Your task to perform on an android device: Go to eBay Image 0: 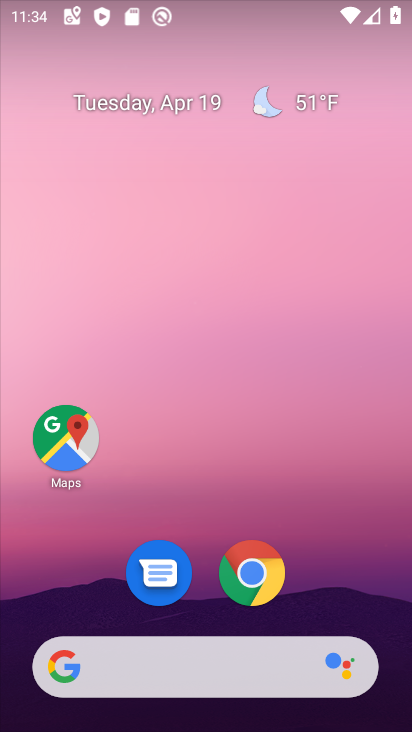
Step 0: click (255, 588)
Your task to perform on an android device: Go to eBay Image 1: 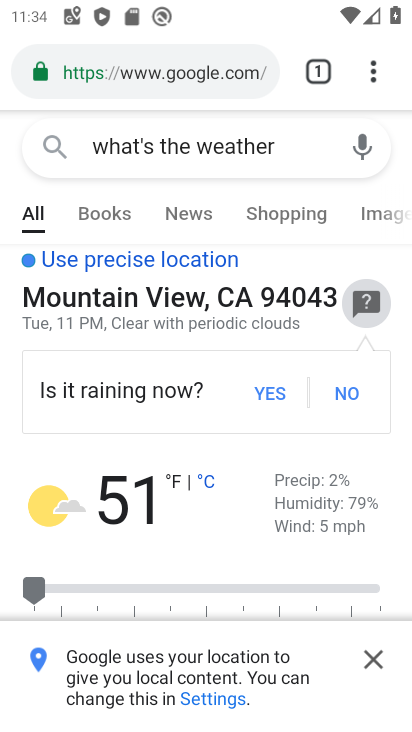
Step 1: click (202, 66)
Your task to perform on an android device: Go to eBay Image 2: 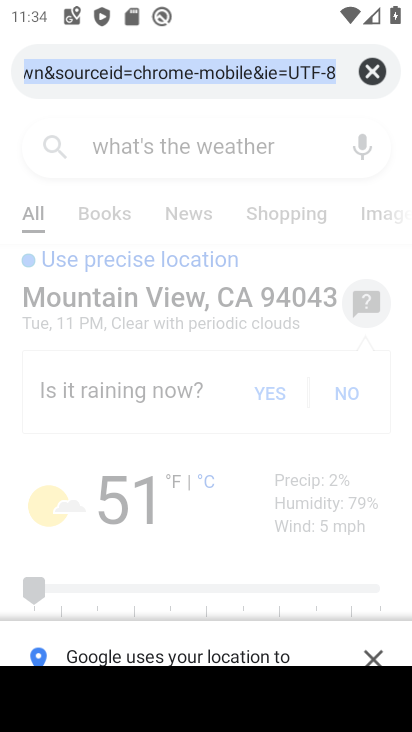
Step 2: type "ebay"
Your task to perform on an android device: Go to eBay Image 3: 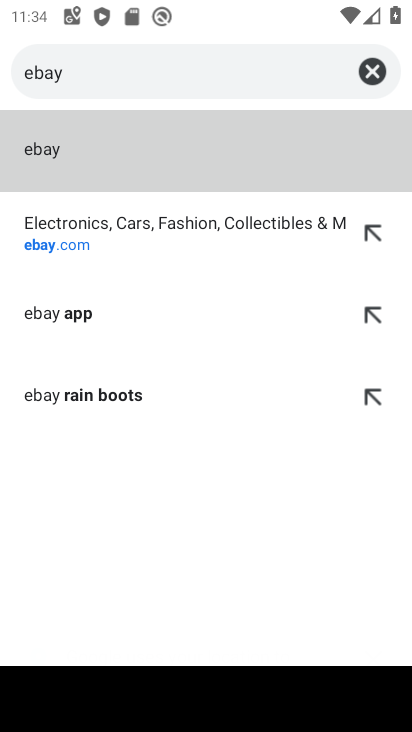
Step 3: click (68, 250)
Your task to perform on an android device: Go to eBay Image 4: 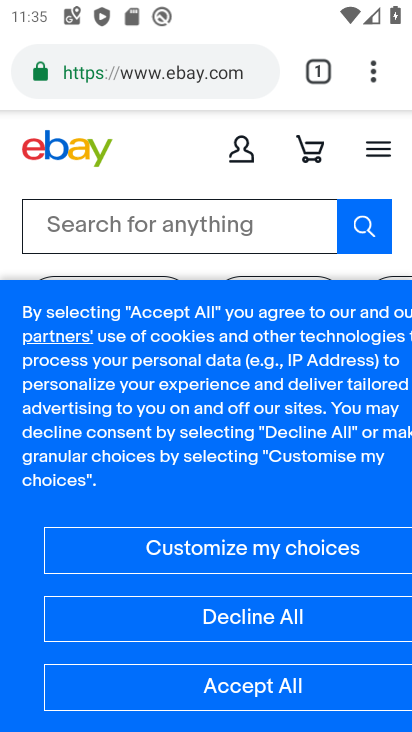
Step 4: task complete